Your task to perform on an android device: Do I have any events tomorrow? Image 0: 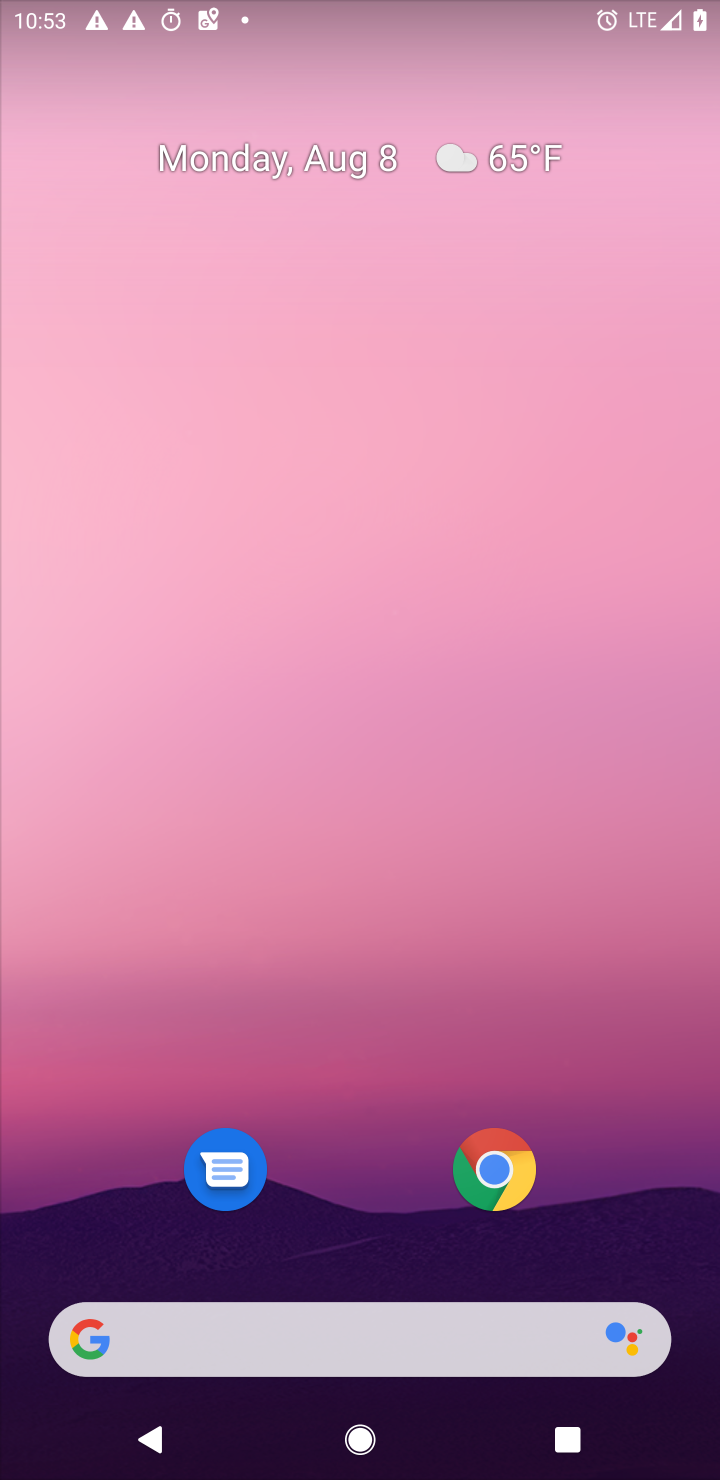
Step 0: drag from (347, 1266) to (505, 63)
Your task to perform on an android device: Do I have any events tomorrow? Image 1: 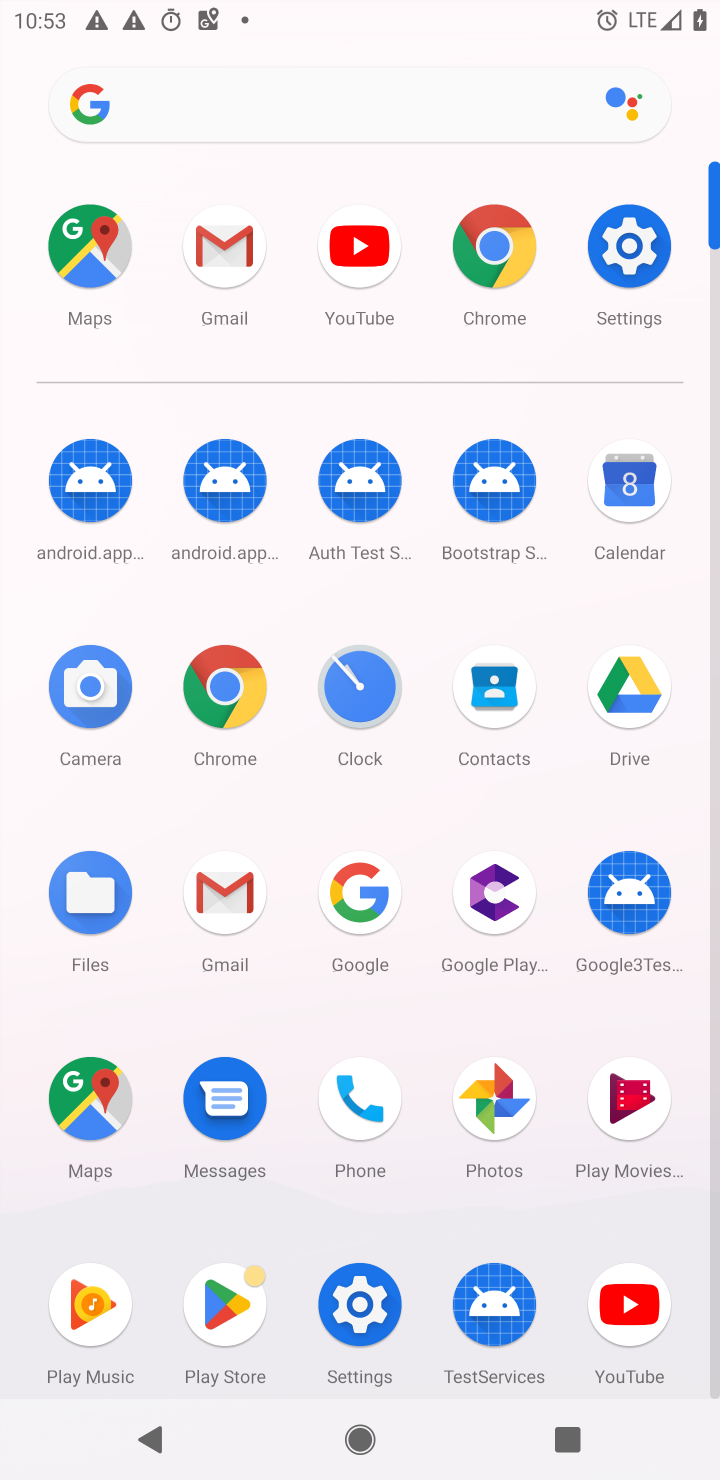
Step 1: click (617, 490)
Your task to perform on an android device: Do I have any events tomorrow? Image 2: 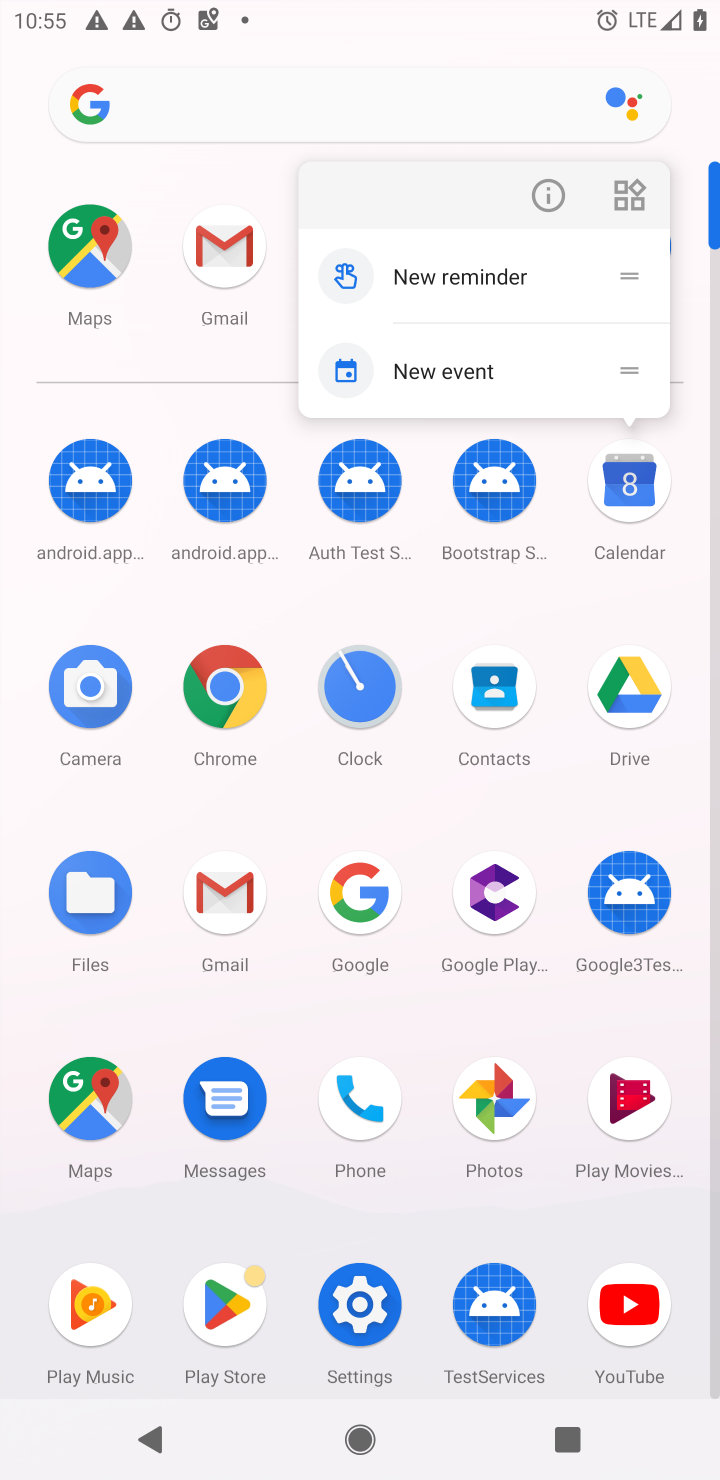
Step 2: click (621, 543)
Your task to perform on an android device: Do I have any events tomorrow? Image 3: 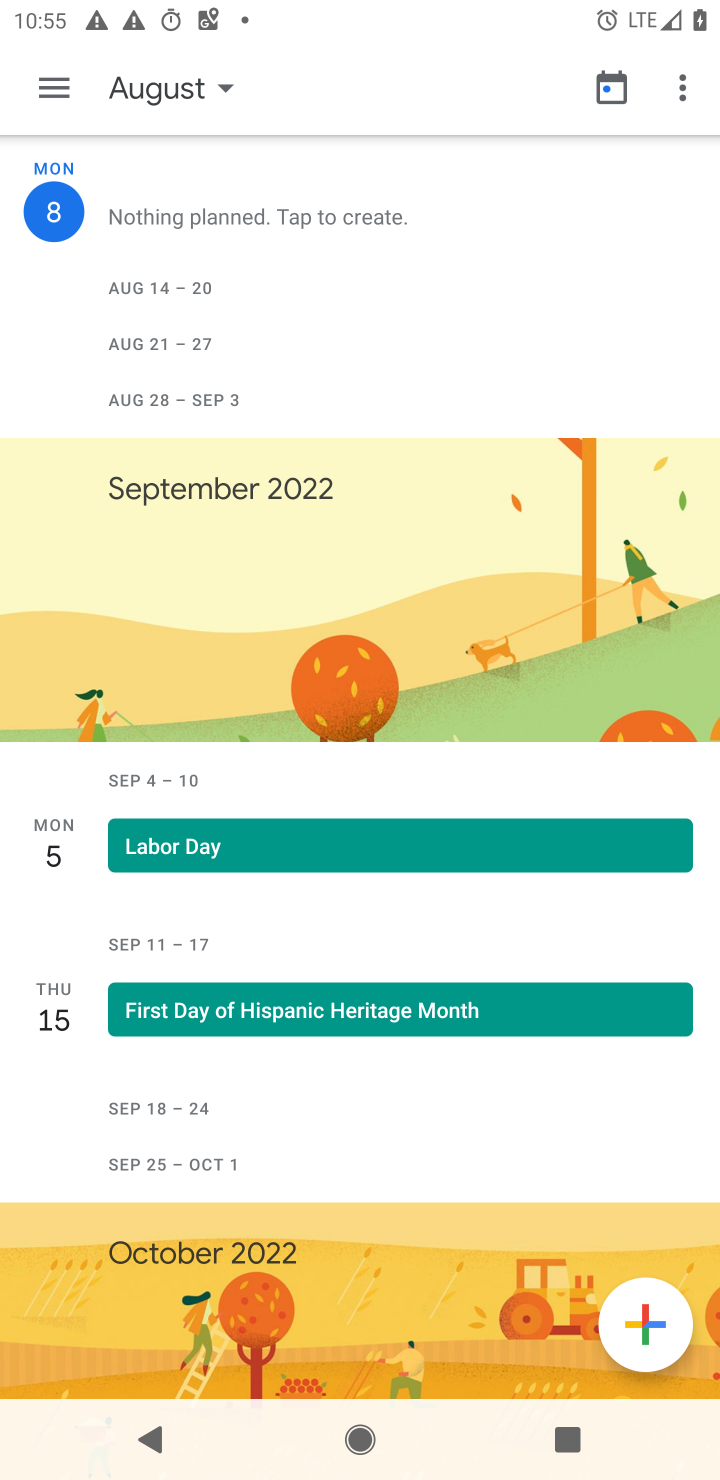
Step 3: click (184, 102)
Your task to perform on an android device: Do I have any events tomorrow? Image 4: 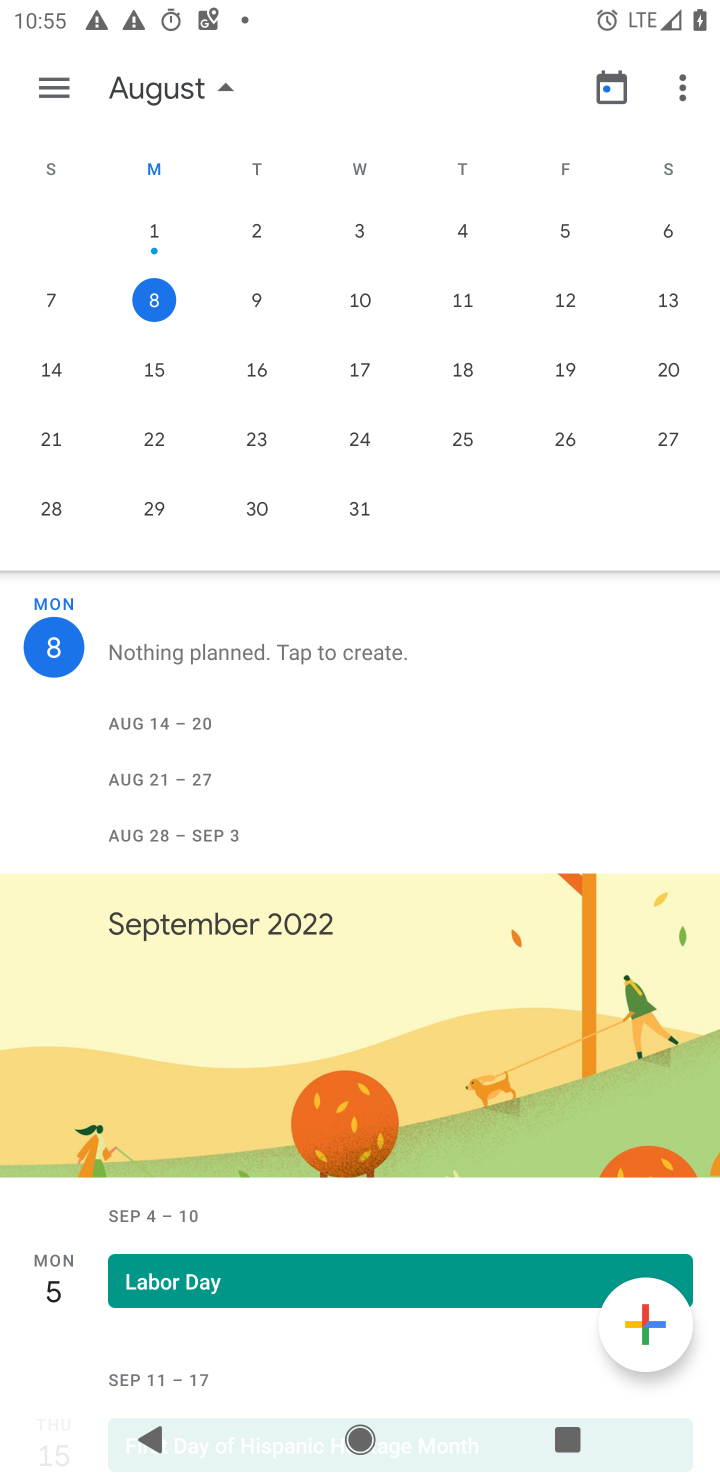
Step 4: click (258, 313)
Your task to perform on an android device: Do I have any events tomorrow? Image 5: 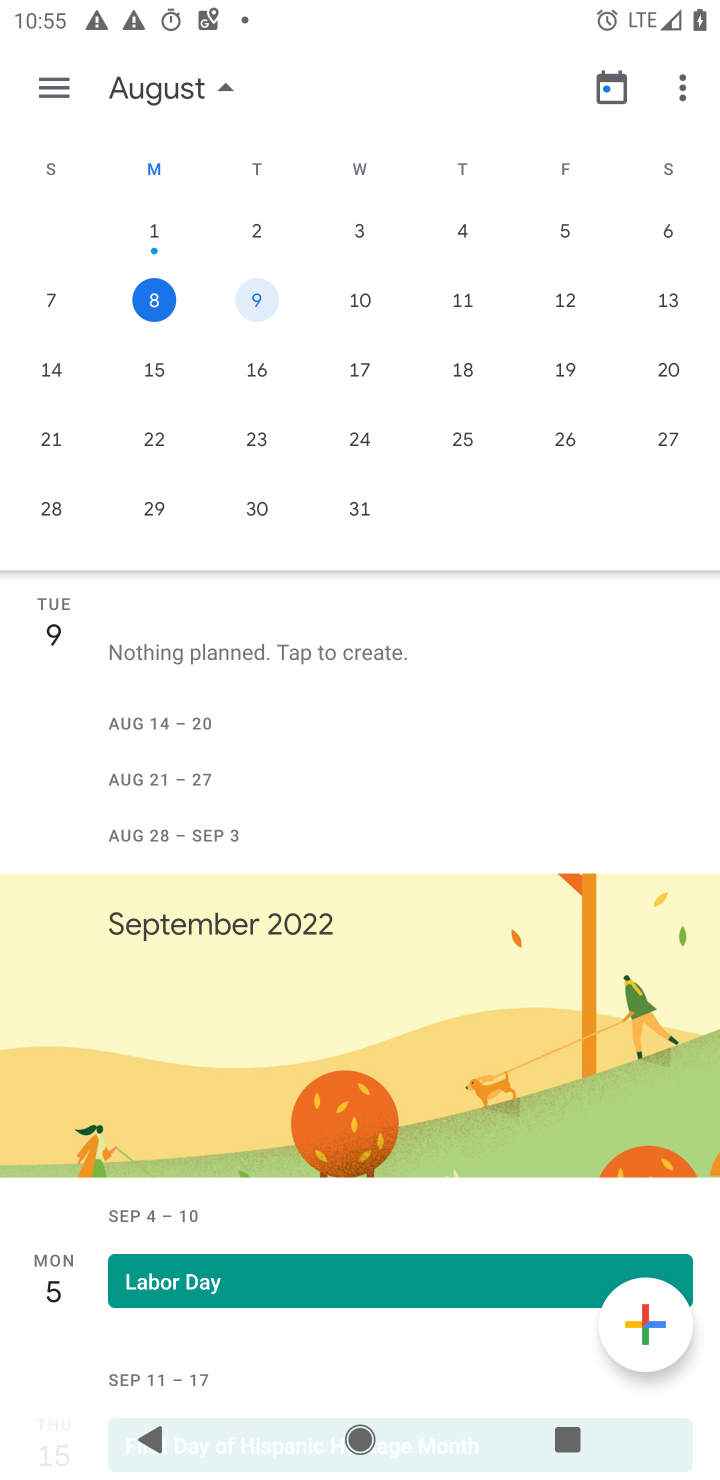
Step 5: task complete